Your task to perform on an android device: Open calendar and show me the second week of next month Image 0: 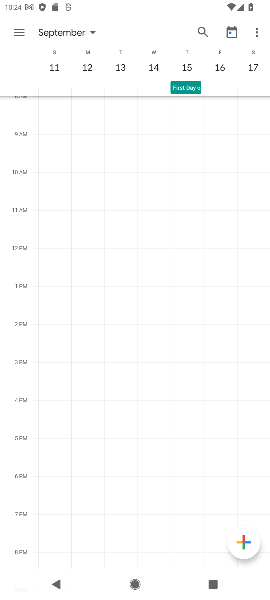
Step 0: task complete